Your task to perform on an android device: Go to CNN.com Image 0: 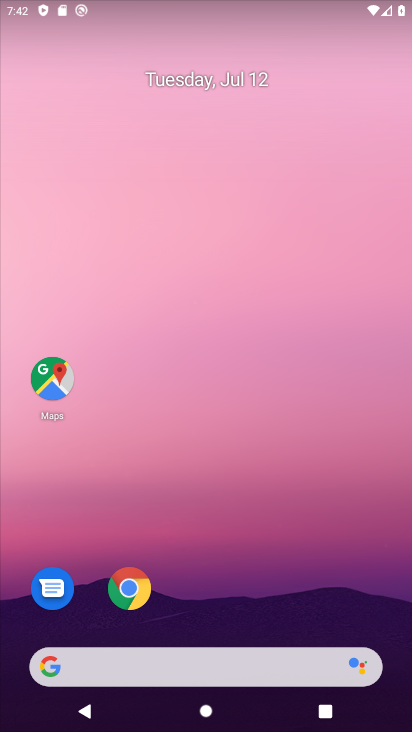
Step 0: drag from (286, 447) to (351, 0)
Your task to perform on an android device: Go to CNN.com Image 1: 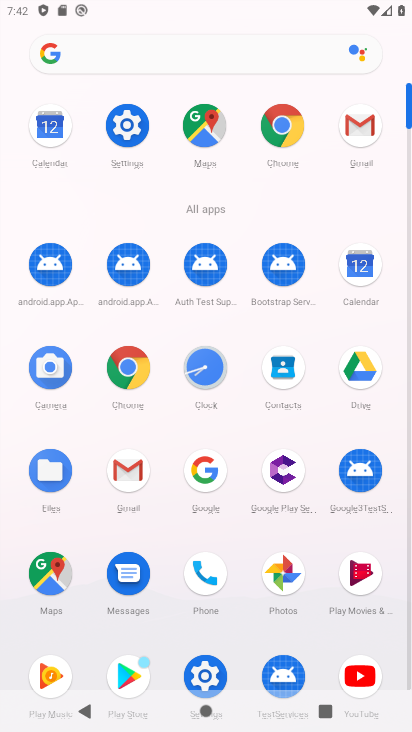
Step 1: click (292, 132)
Your task to perform on an android device: Go to CNN.com Image 2: 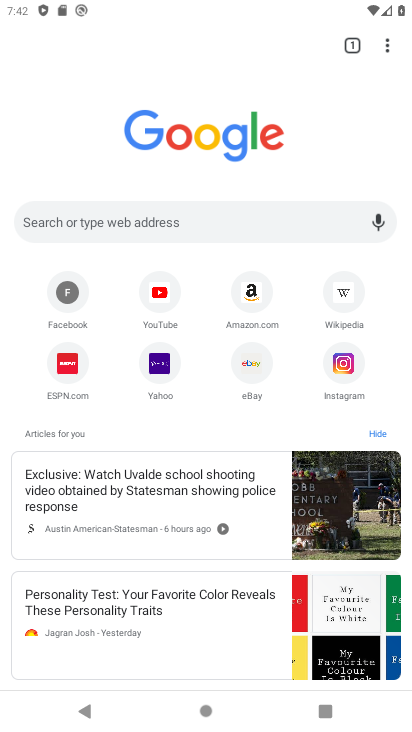
Step 2: click (182, 222)
Your task to perform on an android device: Go to CNN.com Image 3: 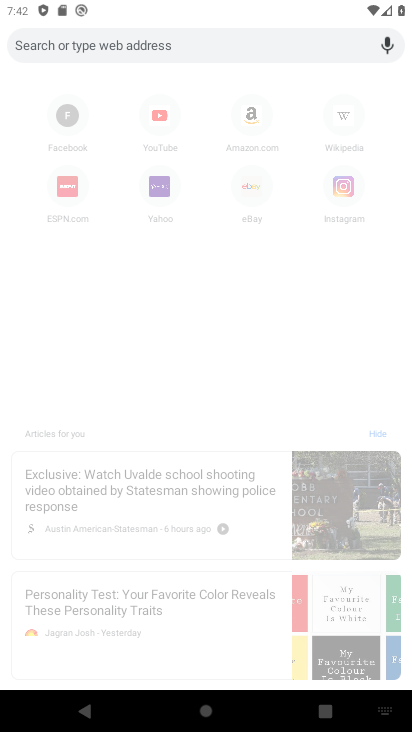
Step 3: type "CNN.com"
Your task to perform on an android device: Go to CNN.com Image 4: 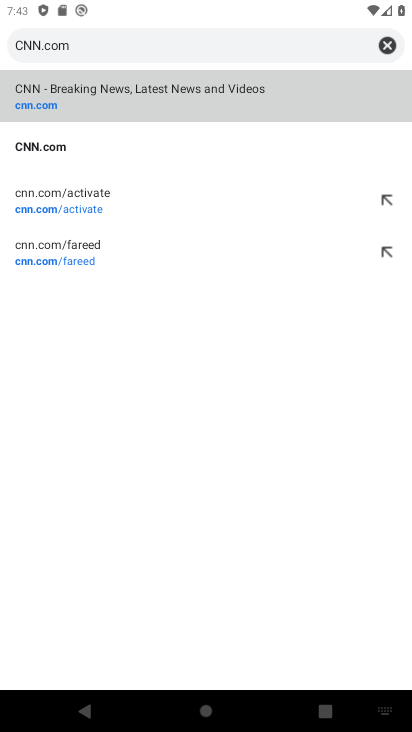
Step 4: click (32, 109)
Your task to perform on an android device: Go to CNN.com Image 5: 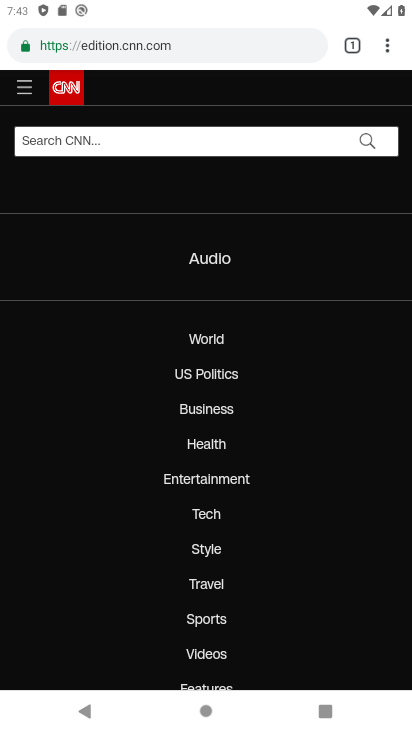
Step 5: task complete